Your task to perform on an android device: add a contact Image 0: 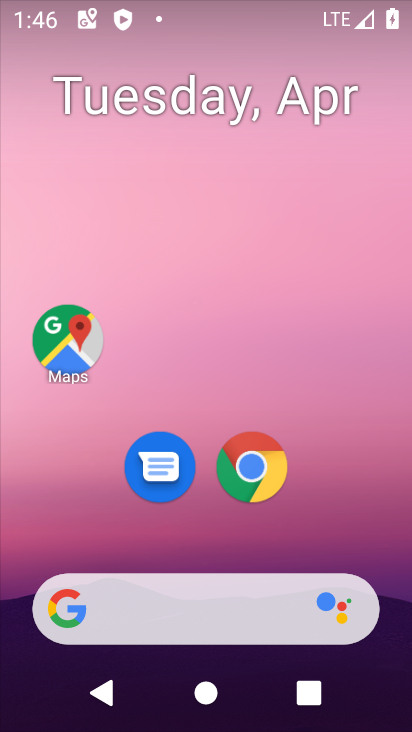
Step 0: drag from (361, 484) to (359, 106)
Your task to perform on an android device: add a contact Image 1: 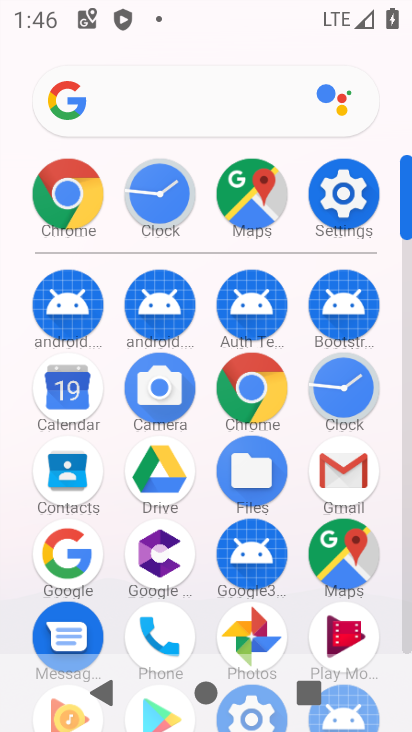
Step 1: click (80, 491)
Your task to perform on an android device: add a contact Image 2: 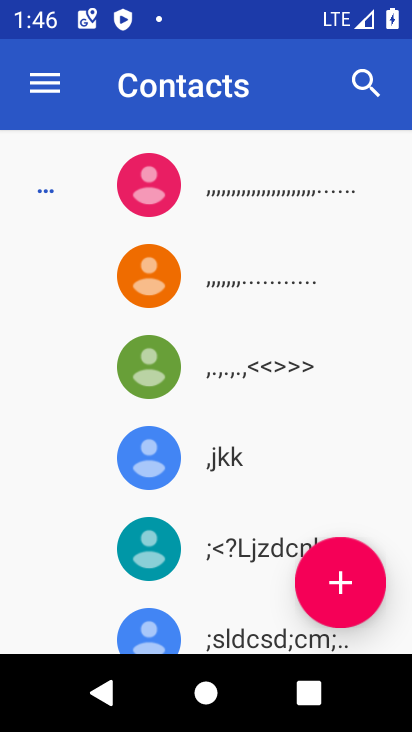
Step 2: click (358, 589)
Your task to perform on an android device: add a contact Image 3: 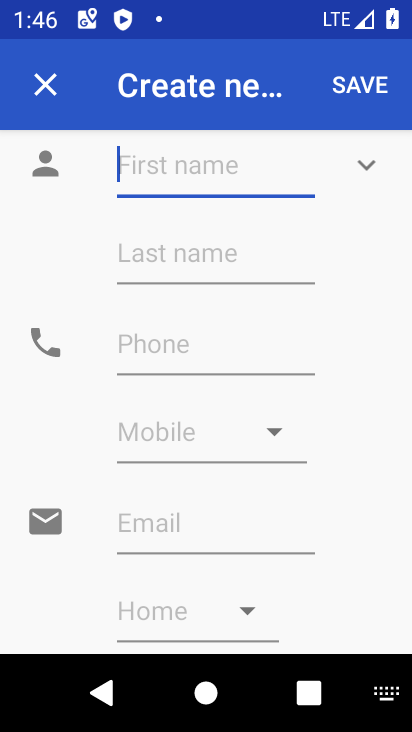
Step 3: click (224, 178)
Your task to perform on an android device: add a contact Image 4: 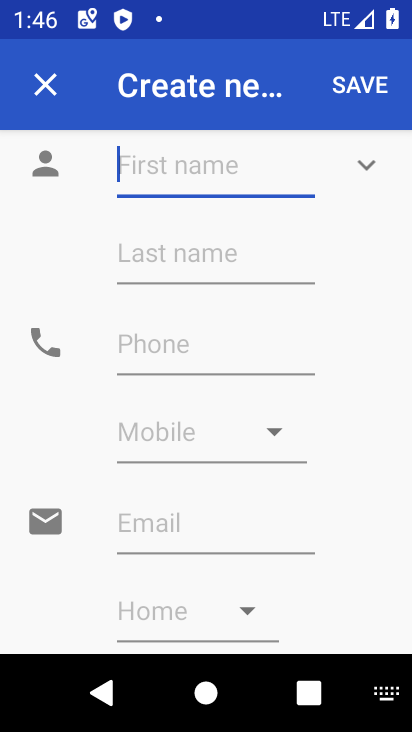
Step 4: type "simi"
Your task to perform on an android device: add a contact Image 5: 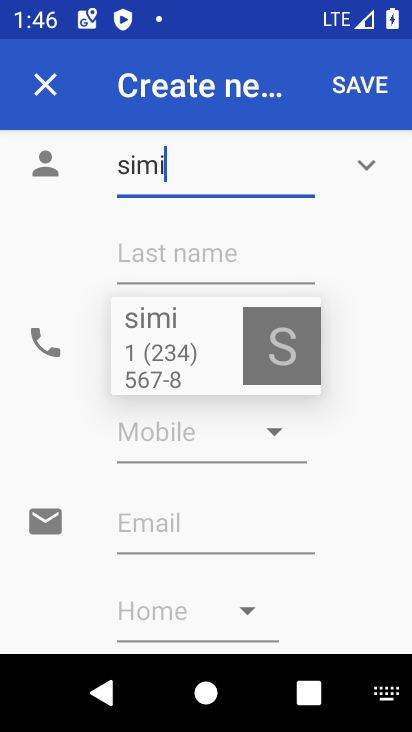
Step 5: click (365, 292)
Your task to perform on an android device: add a contact Image 6: 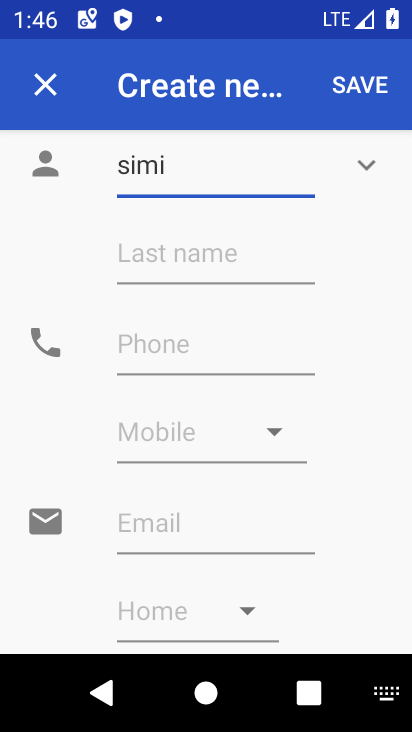
Step 6: click (243, 352)
Your task to perform on an android device: add a contact Image 7: 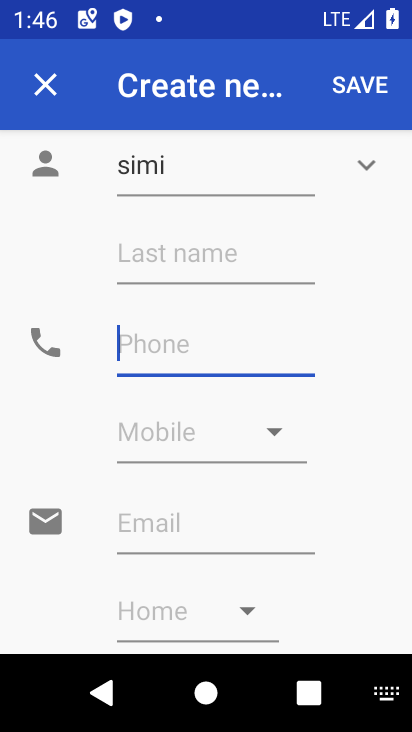
Step 7: type "1234567890"
Your task to perform on an android device: add a contact Image 8: 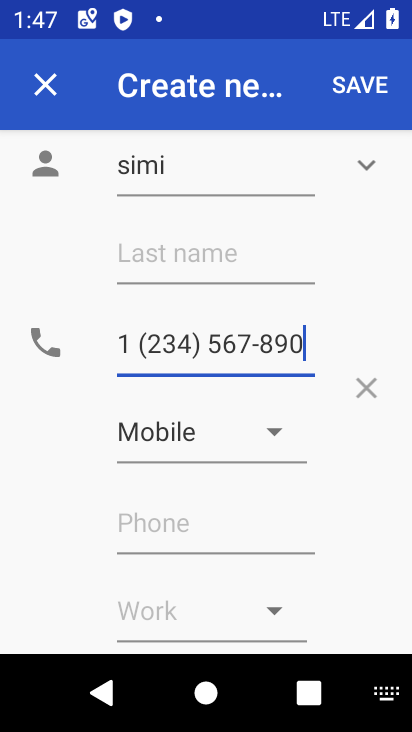
Step 8: click (362, 89)
Your task to perform on an android device: add a contact Image 9: 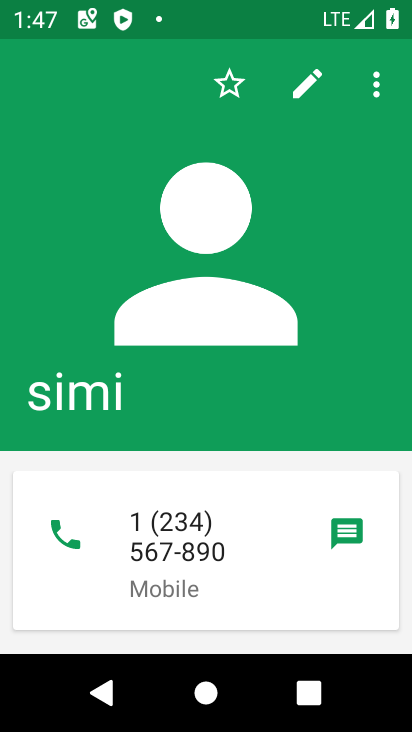
Step 9: task complete